Your task to perform on an android device: turn on wifi Image 0: 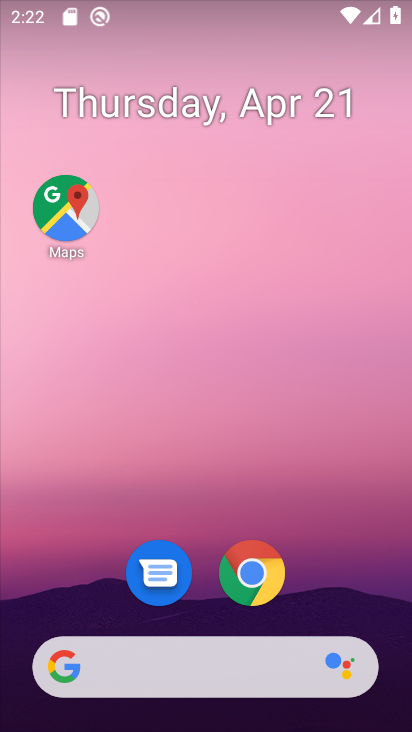
Step 0: drag from (226, 488) to (210, 159)
Your task to perform on an android device: turn on wifi Image 1: 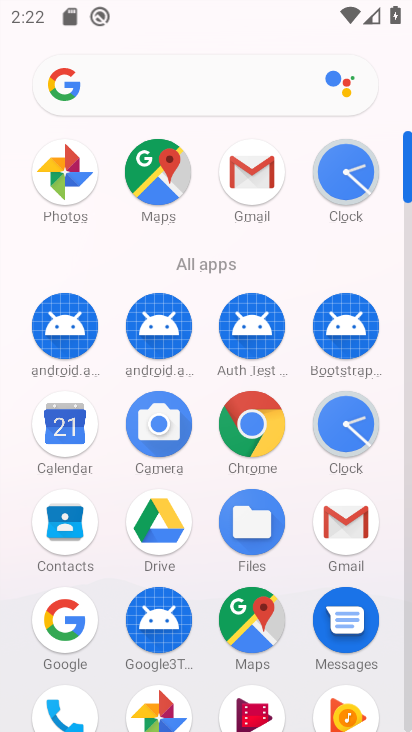
Step 1: drag from (303, 406) to (301, 344)
Your task to perform on an android device: turn on wifi Image 2: 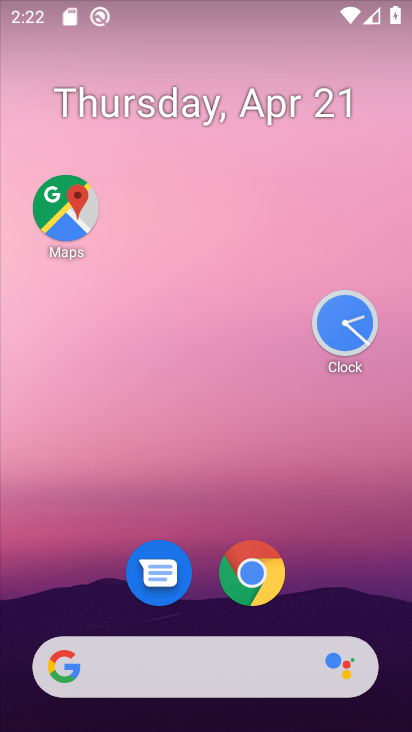
Step 2: drag from (341, 342) to (293, 458)
Your task to perform on an android device: turn on wifi Image 3: 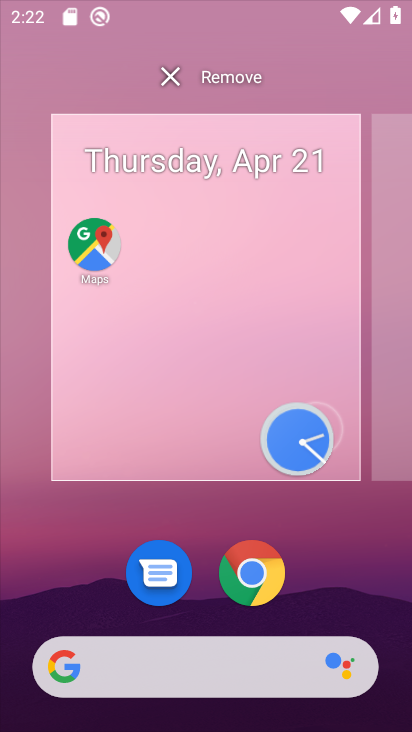
Step 3: click (253, 305)
Your task to perform on an android device: turn on wifi Image 4: 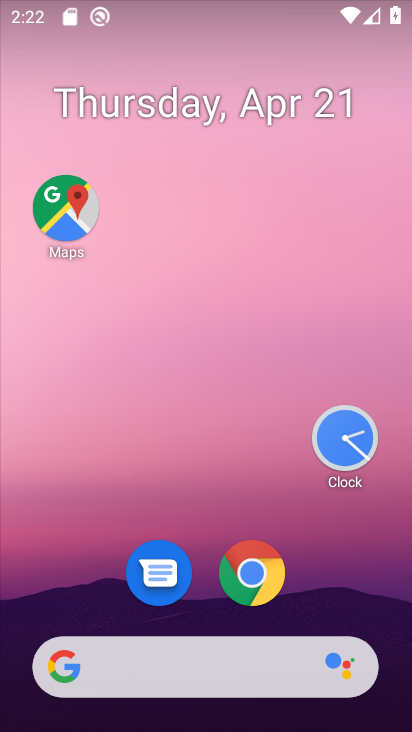
Step 4: drag from (229, 494) to (183, 70)
Your task to perform on an android device: turn on wifi Image 5: 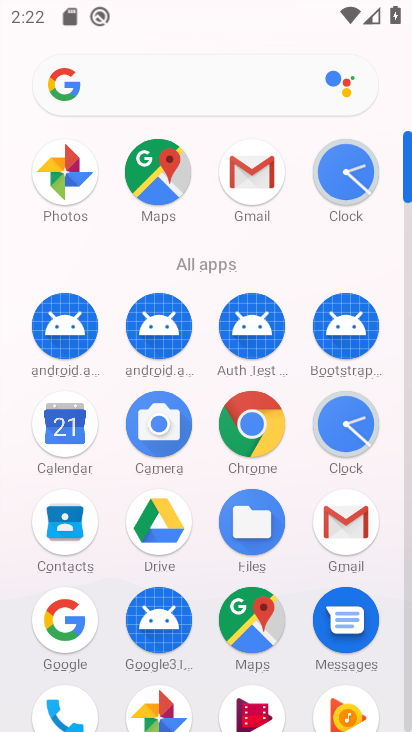
Step 5: drag from (207, 487) to (190, 252)
Your task to perform on an android device: turn on wifi Image 6: 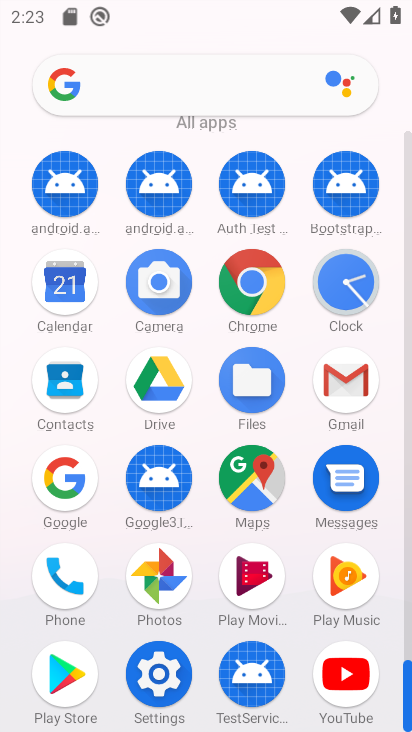
Step 6: click (165, 672)
Your task to perform on an android device: turn on wifi Image 7: 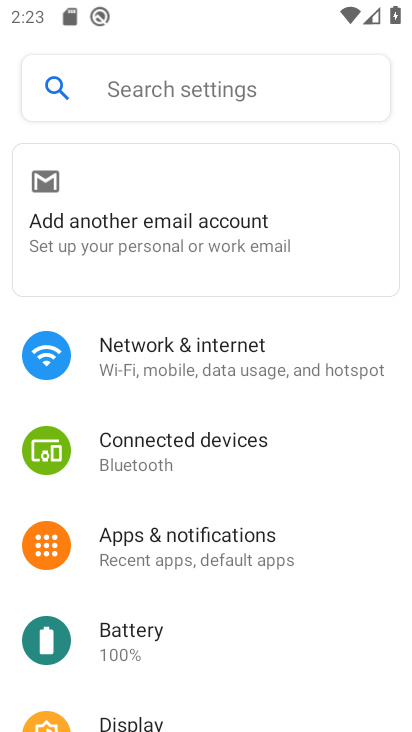
Step 7: click (162, 372)
Your task to perform on an android device: turn on wifi Image 8: 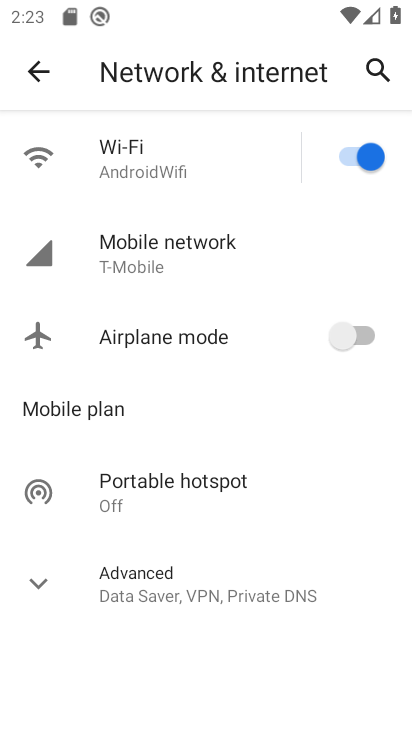
Step 8: task complete